Your task to perform on an android device: What's on my calendar today? Image 0: 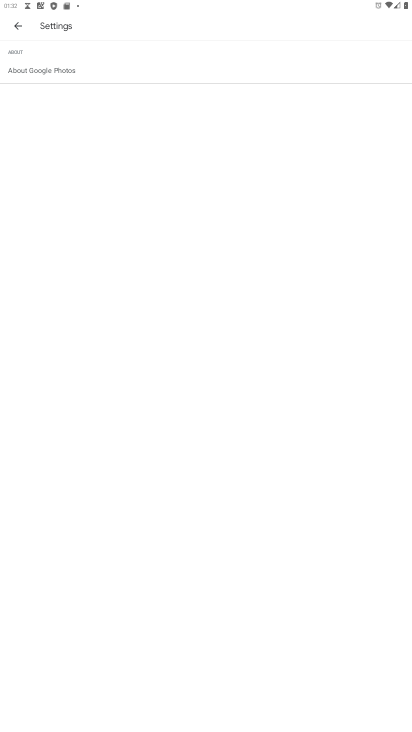
Step 0: press home button
Your task to perform on an android device: What's on my calendar today? Image 1: 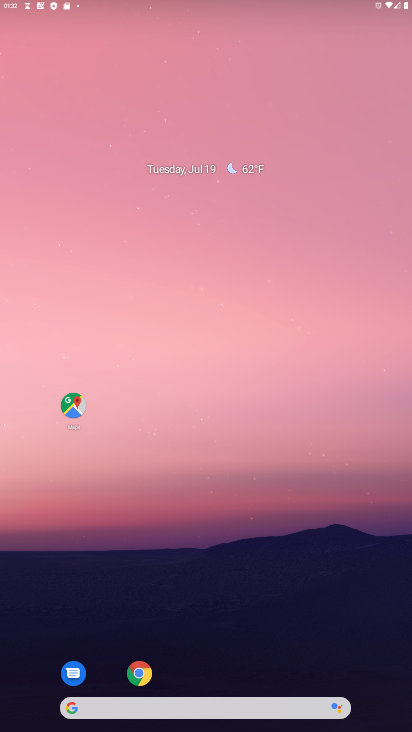
Step 1: drag from (297, 652) to (288, 157)
Your task to perform on an android device: What's on my calendar today? Image 2: 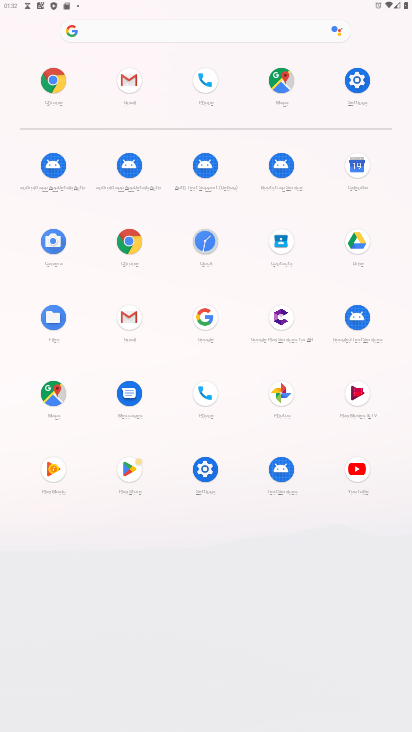
Step 2: click (350, 160)
Your task to perform on an android device: What's on my calendar today? Image 3: 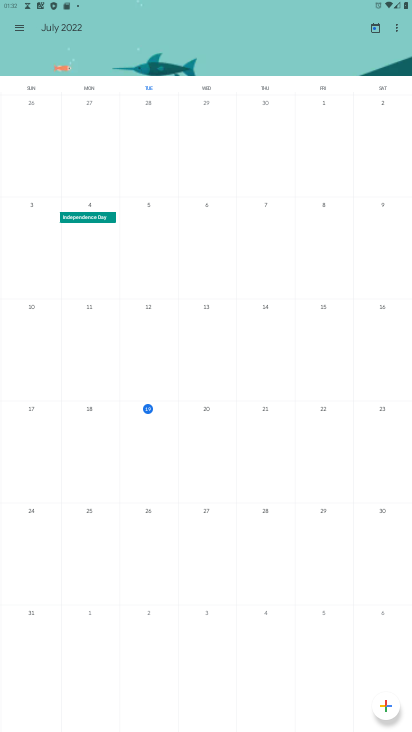
Step 3: click (158, 433)
Your task to perform on an android device: What's on my calendar today? Image 4: 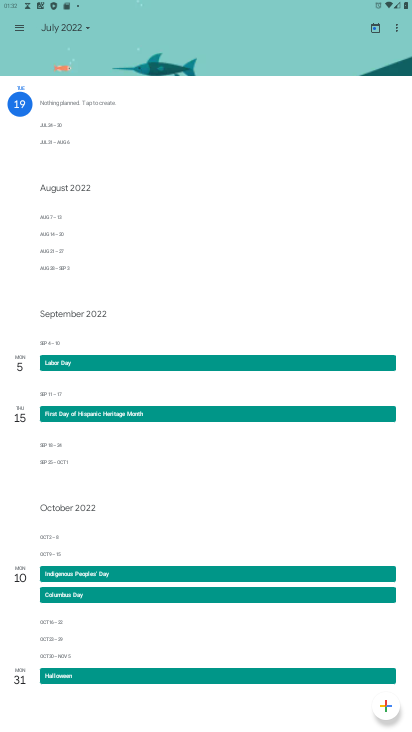
Step 4: task complete